Your task to perform on an android device: What's the weather today? Image 0: 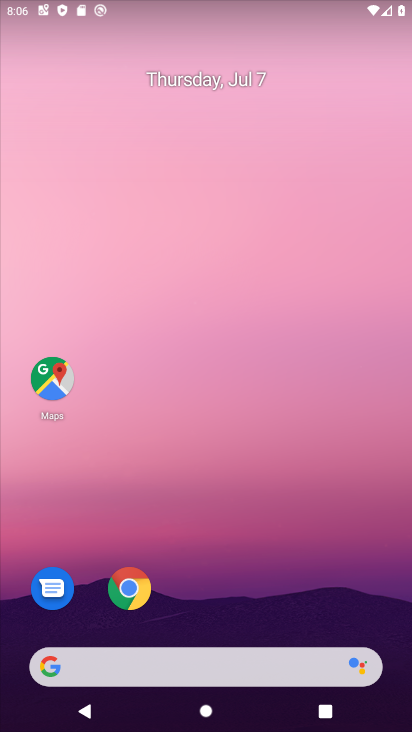
Step 0: drag from (172, 599) to (258, 50)
Your task to perform on an android device: What's the weather today? Image 1: 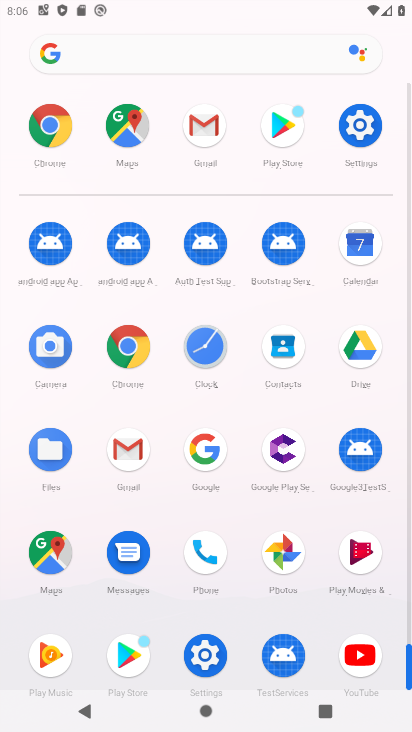
Step 1: click (198, 145)
Your task to perform on an android device: What's the weather today? Image 2: 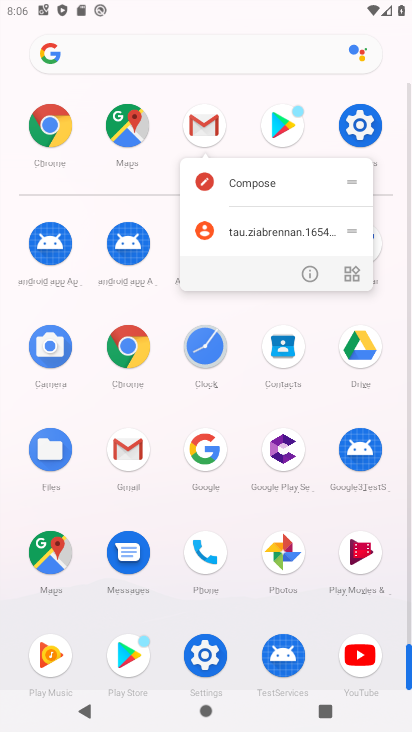
Step 2: click (309, 274)
Your task to perform on an android device: What's the weather today? Image 3: 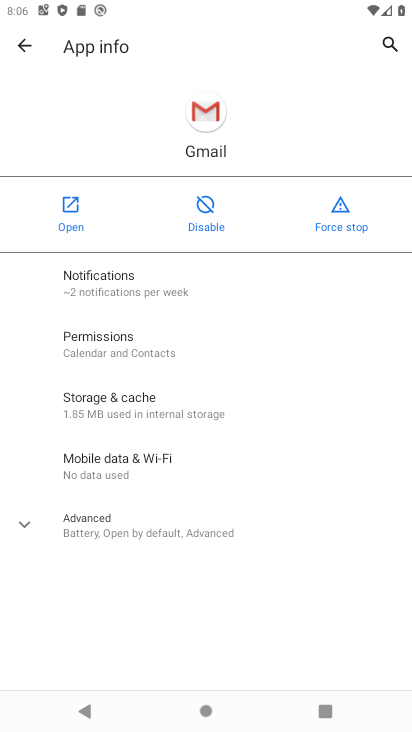
Step 3: click (71, 214)
Your task to perform on an android device: What's the weather today? Image 4: 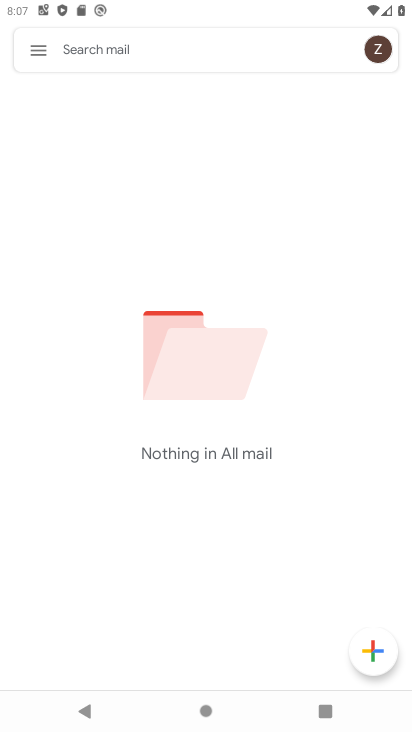
Step 4: drag from (213, 496) to (212, 106)
Your task to perform on an android device: What's the weather today? Image 5: 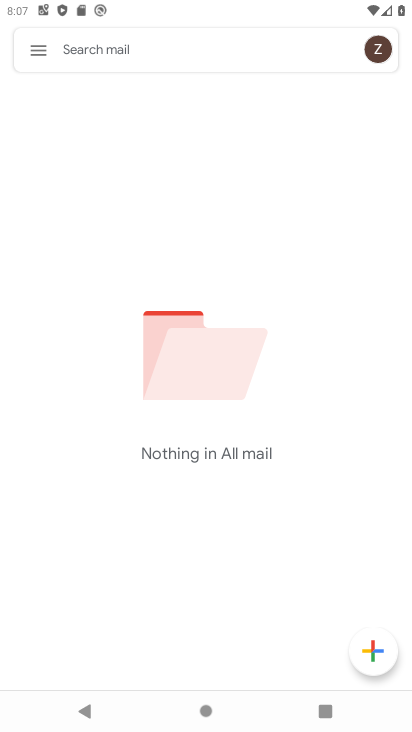
Step 5: click (43, 55)
Your task to perform on an android device: What's the weather today? Image 6: 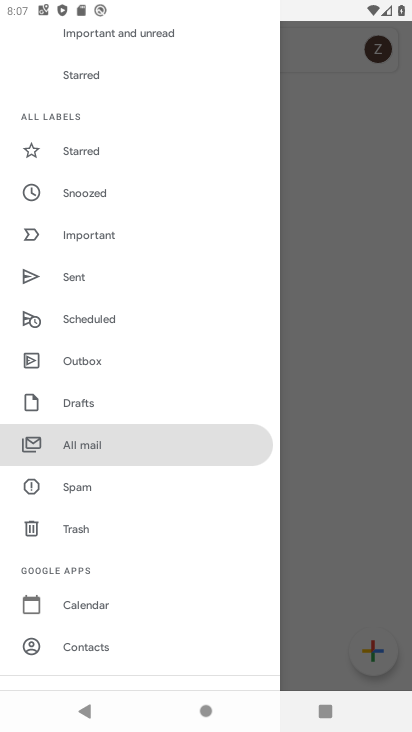
Step 6: press home button
Your task to perform on an android device: What's the weather today? Image 7: 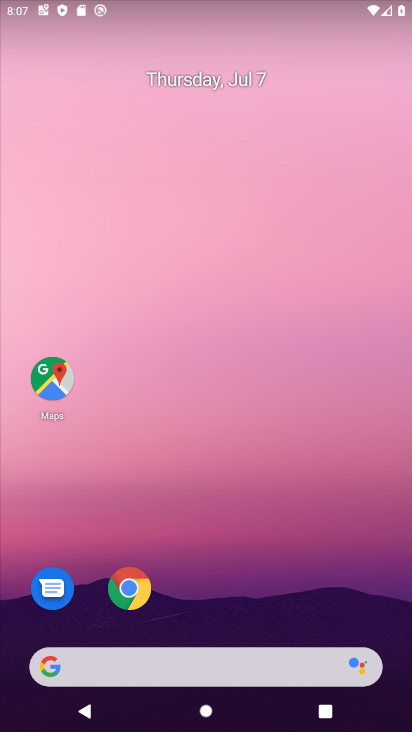
Step 7: drag from (201, 599) to (187, 88)
Your task to perform on an android device: What's the weather today? Image 8: 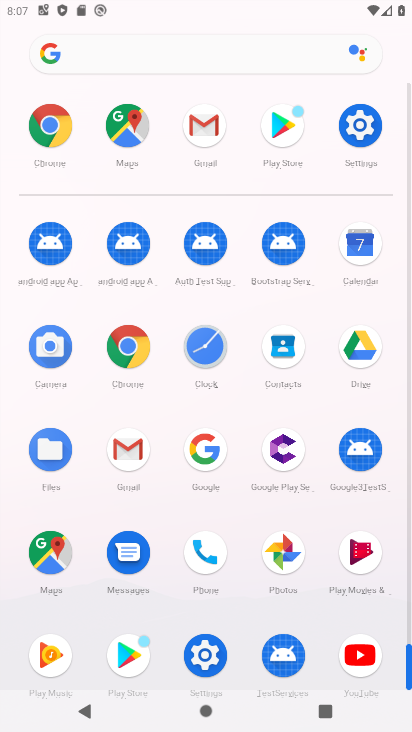
Step 8: click (48, 133)
Your task to perform on an android device: What's the weather today? Image 9: 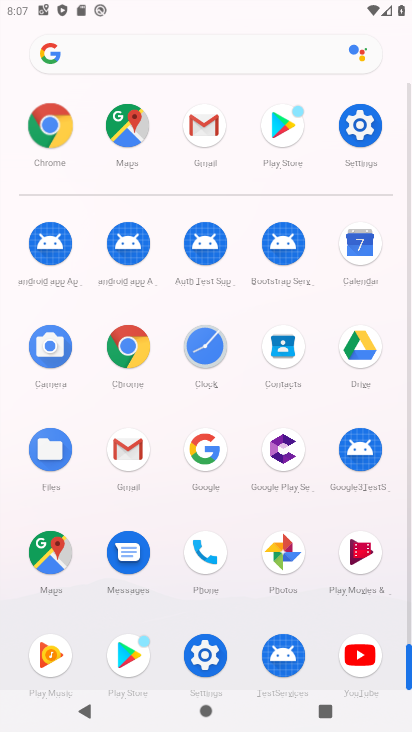
Step 9: click (48, 132)
Your task to perform on an android device: What's the weather today? Image 10: 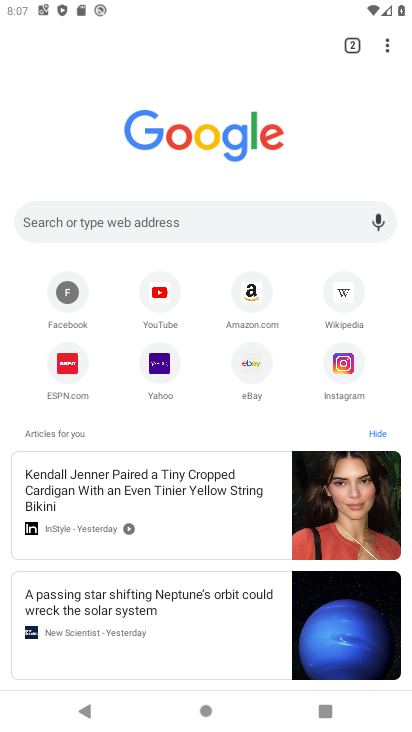
Step 10: drag from (160, 470) to (256, 225)
Your task to perform on an android device: What's the weather today? Image 11: 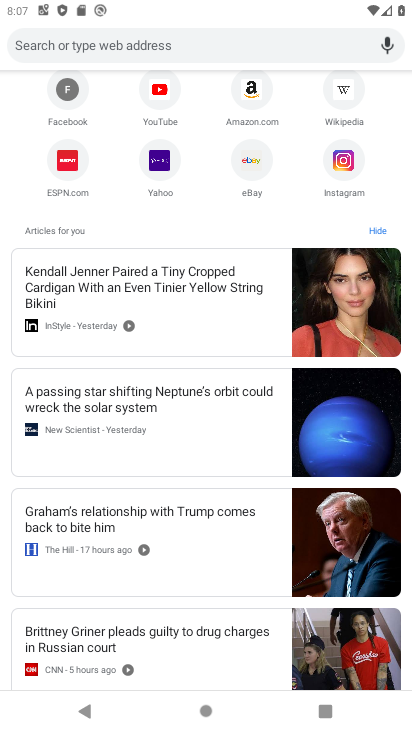
Step 11: drag from (140, 582) to (145, 159)
Your task to perform on an android device: What's the weather today? Image 12: 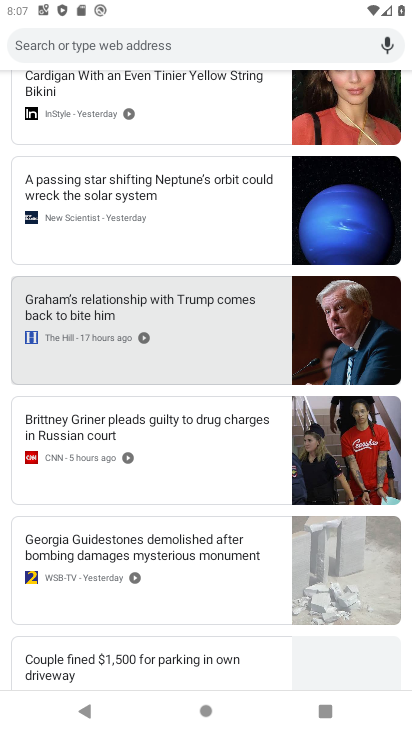
Step 12: drag from (152, 121) to (210, 714)
Your task to perform on an android device: What's the weather today? Image 13: 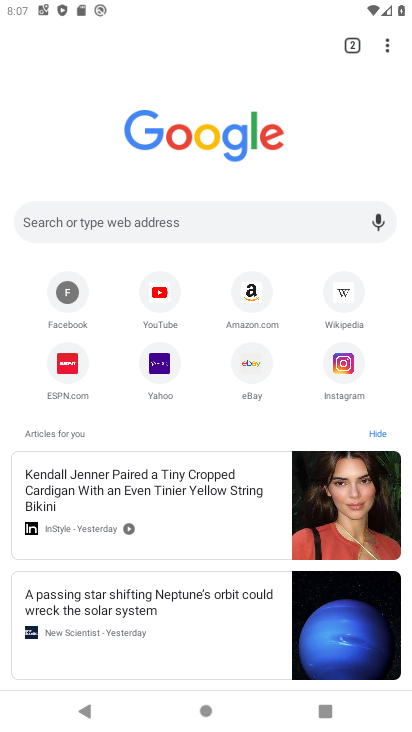
Step 13: click (118, 238)
Your task to perform on an android device: What's the weather today? Image 14: 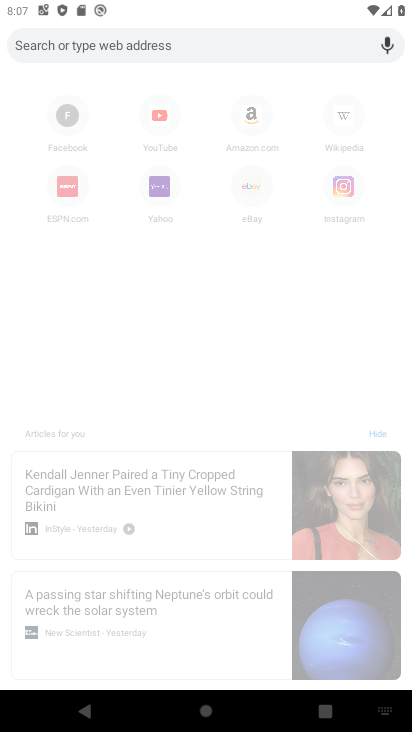
Step 14: type "weather today"
Your task to perform on an android device: What's the weather today? Image 15: 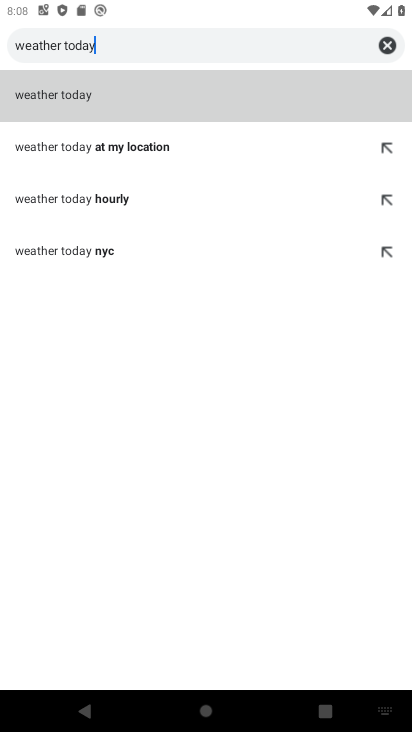
Step 15: drag from (214, 573) to (249, 322)
Your task to perform on an android device: What's the weather today? Image 16: 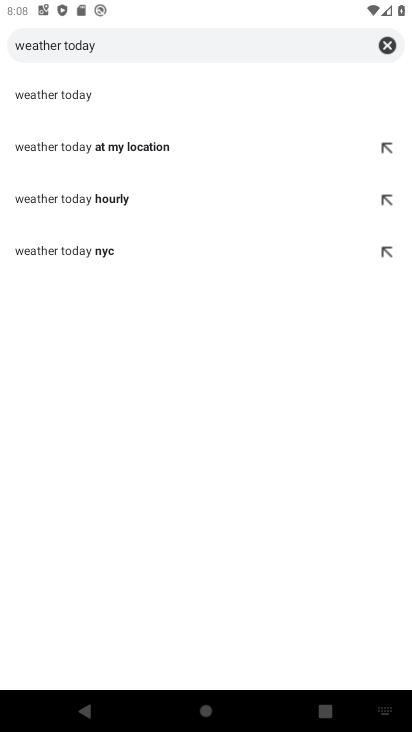
Step 16: drag from (218, 597) to (256, 411)
Your task to perform on an android device: What's the weather today? Image 17: 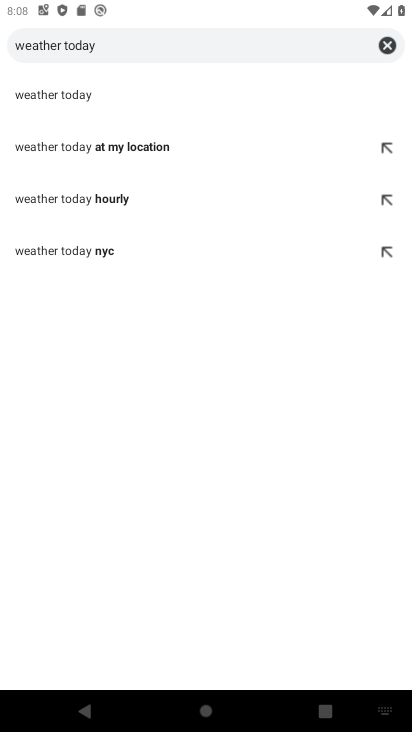
Step 17: click (86, 101)
Your task to perform on an android device: What's the weather today? Image 18: 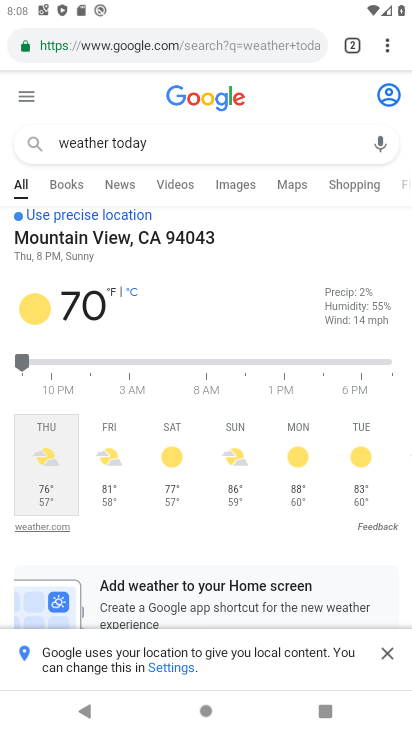
Step 18: task complete